Your task to perform on an android device: What is the news today? Image 0: 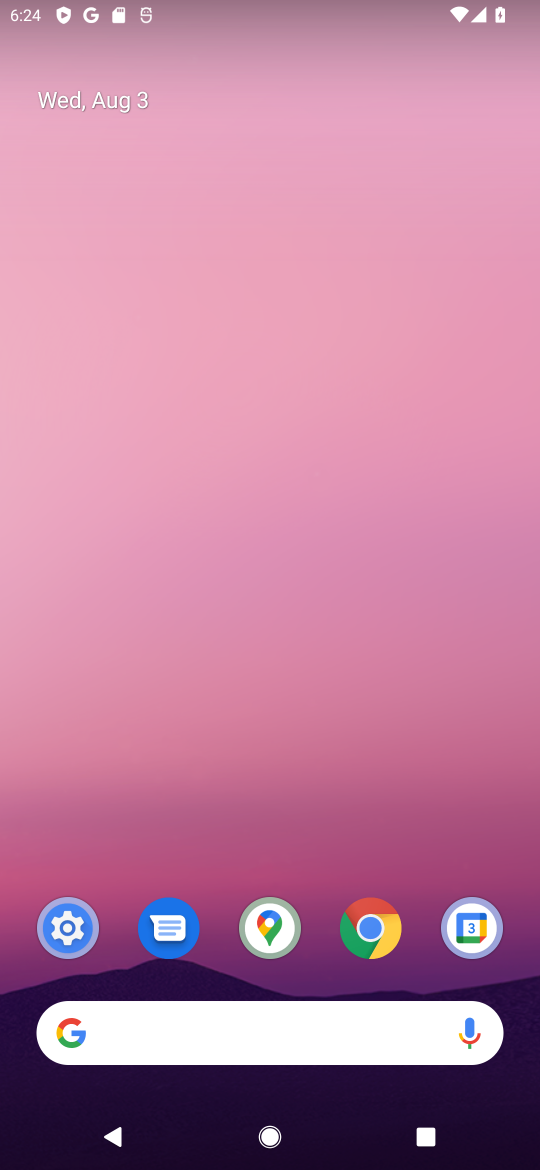
Step 0: press home button
Your task to perform on an android device: What is the news today? Image 1: 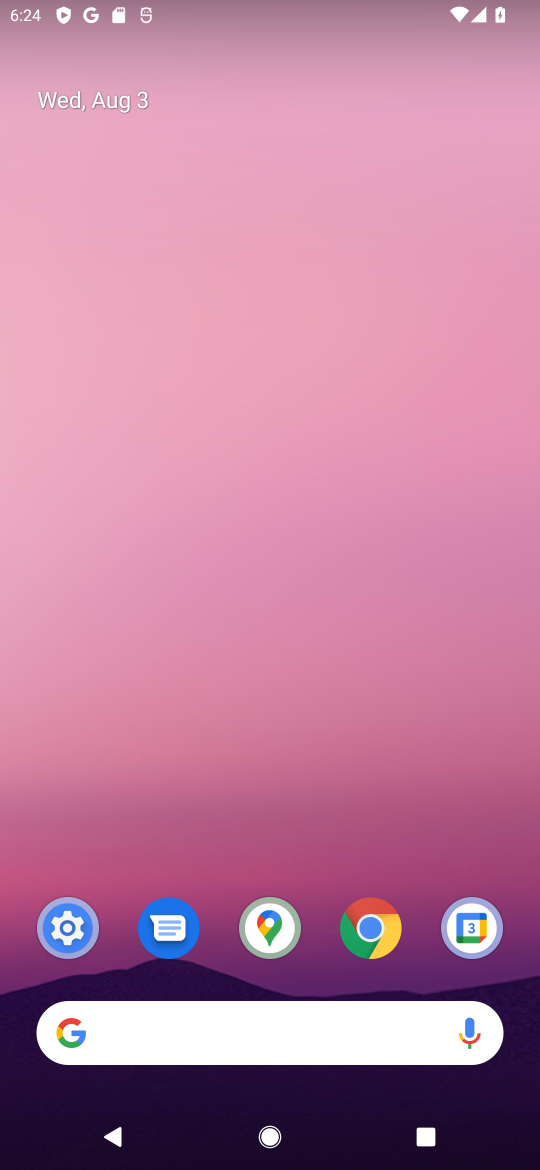
Step 1: task complete